Your task to perform on an android device: Open Android settings Image 0: 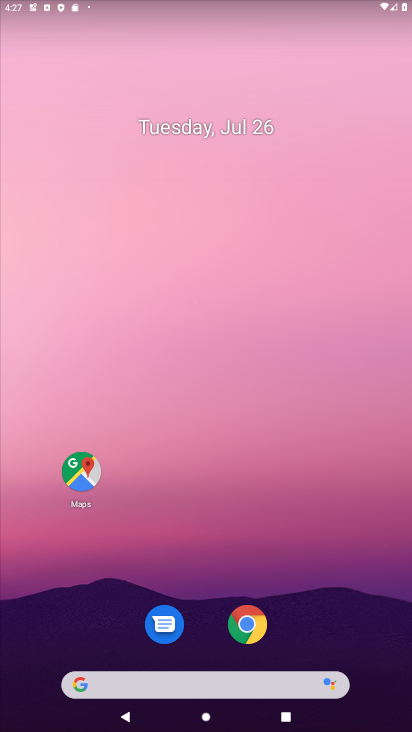
Step 0: drag from (294, 687) to (299, 6)
Your task to perform on an android device: Open Android settings Image 1: 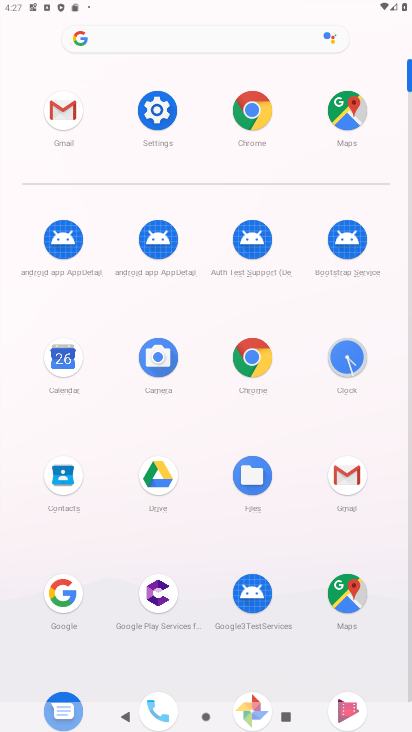
Step 1: click (162, 114)
Your task to perform on an android device: Open Android settings Image 2: 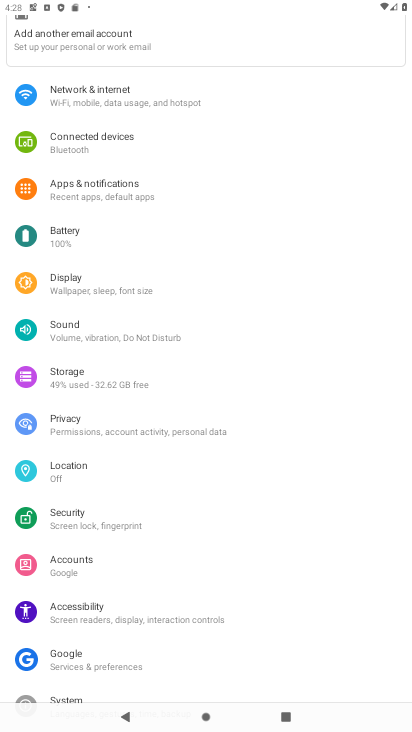
Step 2: drag from (211, 629) to (220, 183)
Your task to perform on an android device: Open Android settings Image 3: 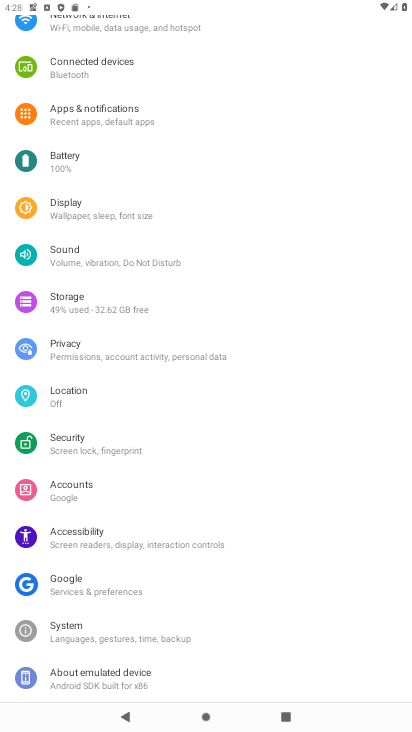
Step 3: click (199, 686)
Your task to perform on an android device: Open Android settings Image 4: 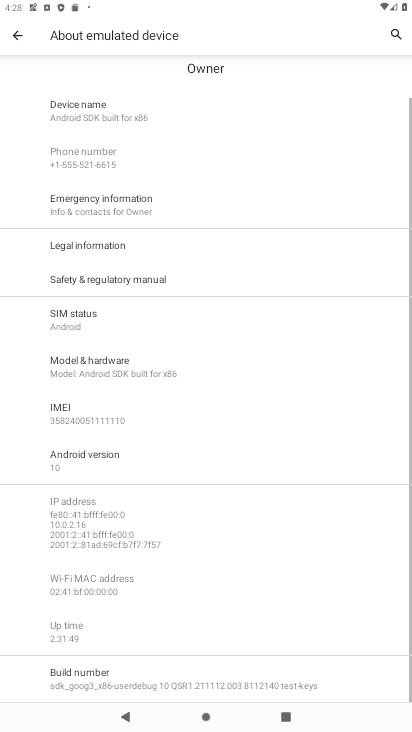
Step 4: click (111, 471)
Your task to perform on an android device: Open Android settings Image 5: 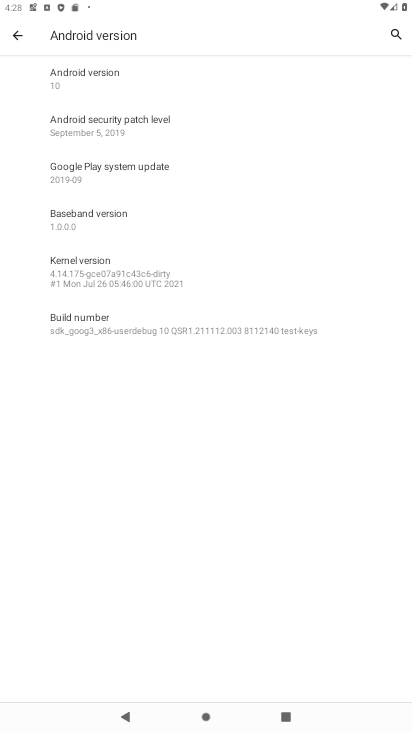
Step 5: task complete